Your task to perform on an android device: open chrome privacy settings Image 0: 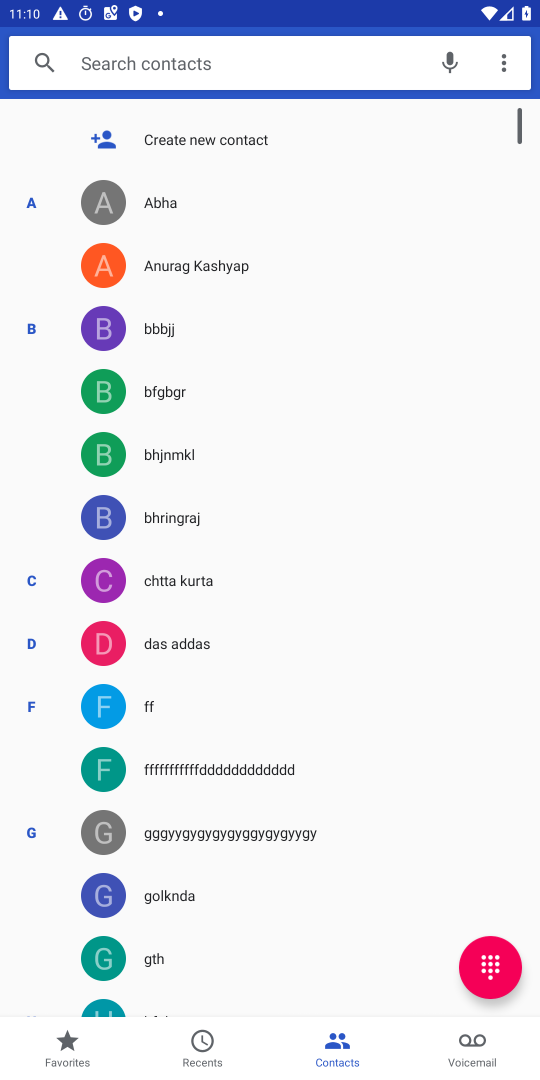
Step 0: press home button
Your task to perform on an android device: open chrome privacy settings Image 1: 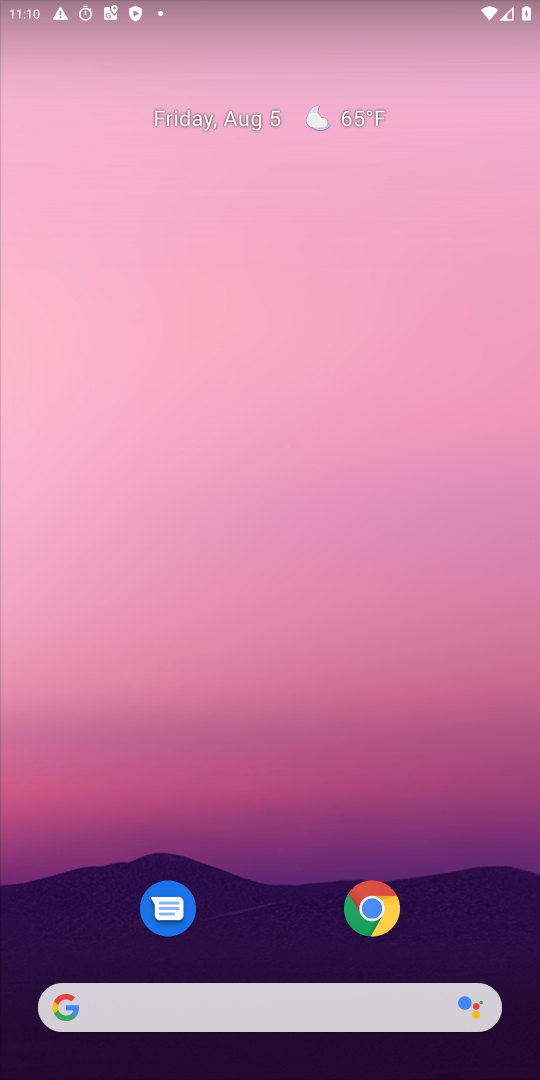
Step 1: click (375, 893)
Your task to perform on an android device: open chrome privacy settings Image 2: 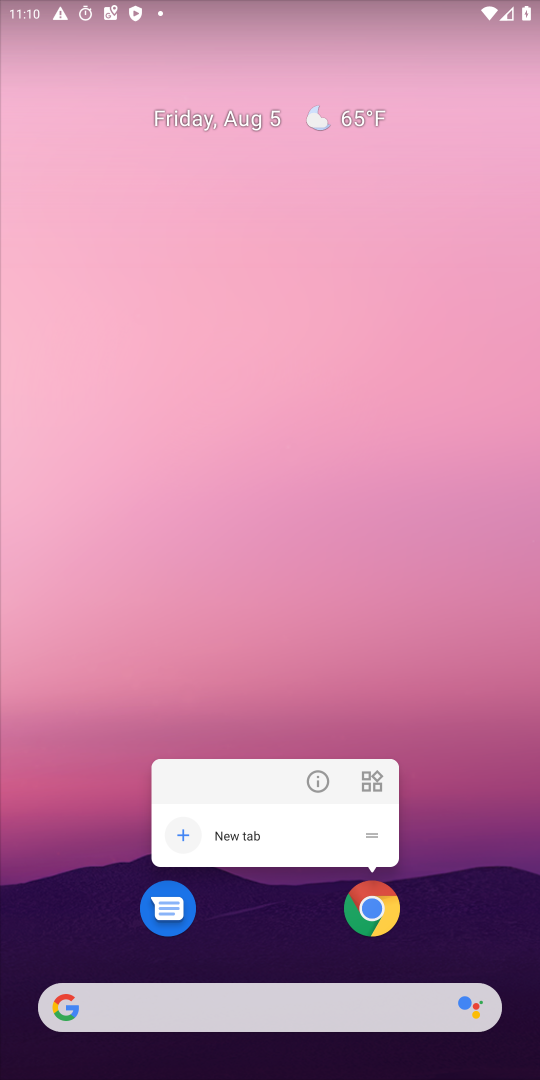
Step 2: click (364, 909)
Your task to perform on an android device: open chrome privacy settings Image 3: 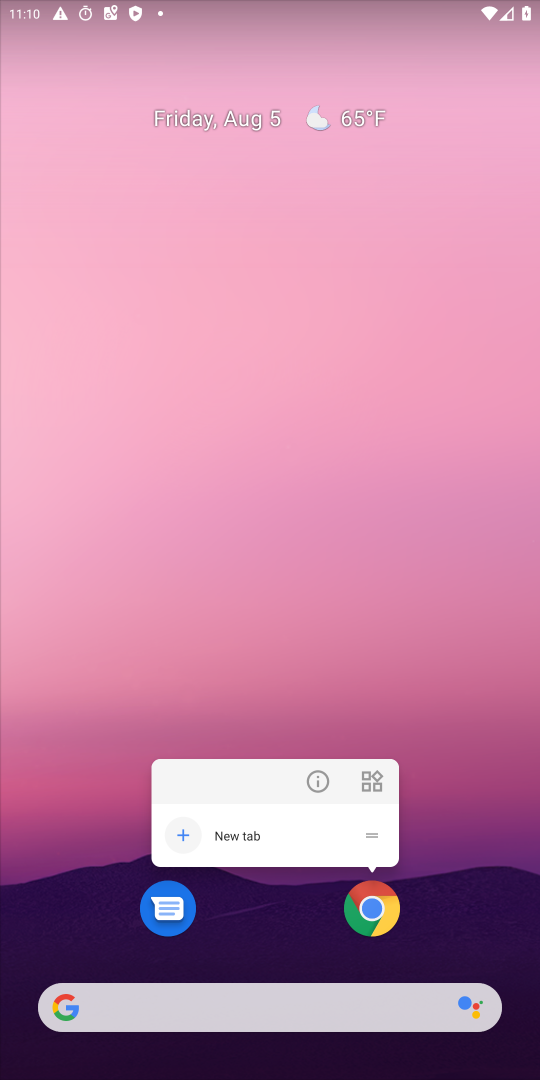
Step 3: click (350, 924)
Your task to perform on an android device: open chrome privacy settings Image 4: 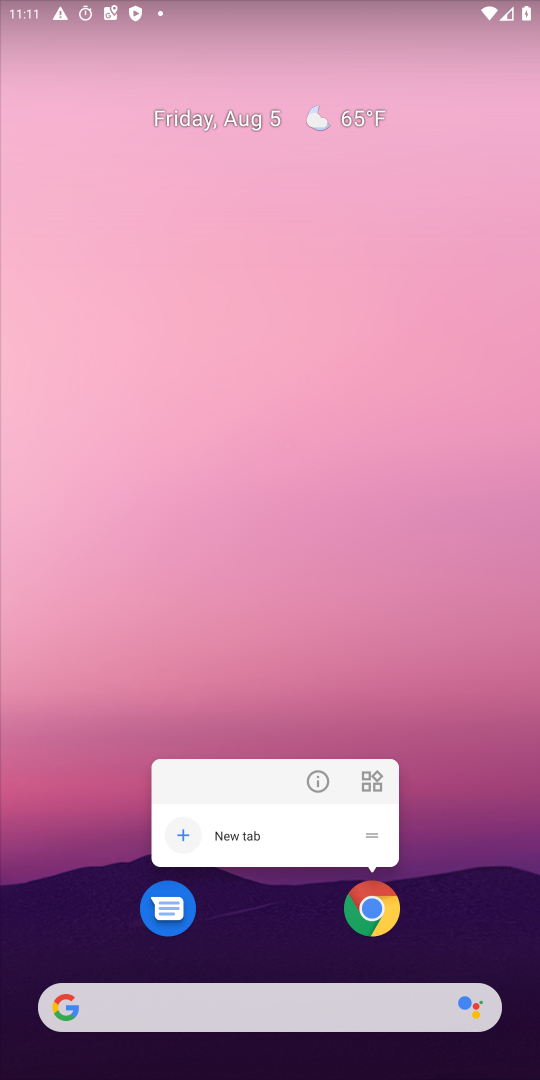
Step 4: click (369, 930)
Your task to perform on an android device: open chrome privacy settings Image 5: 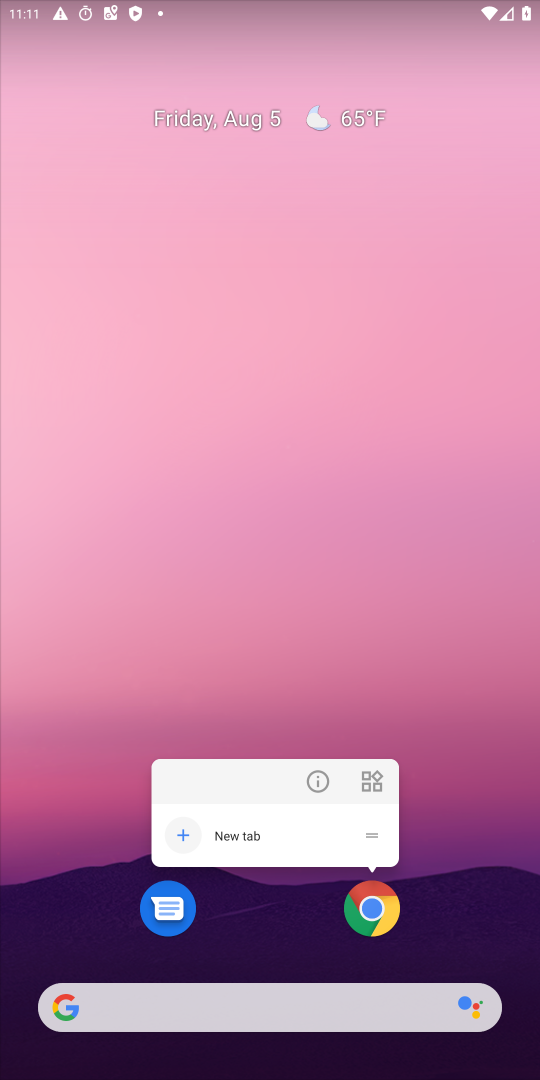
Step 5: click (373, 865)
Your task to perform on an android device: open chrome privacy settings Image 6: 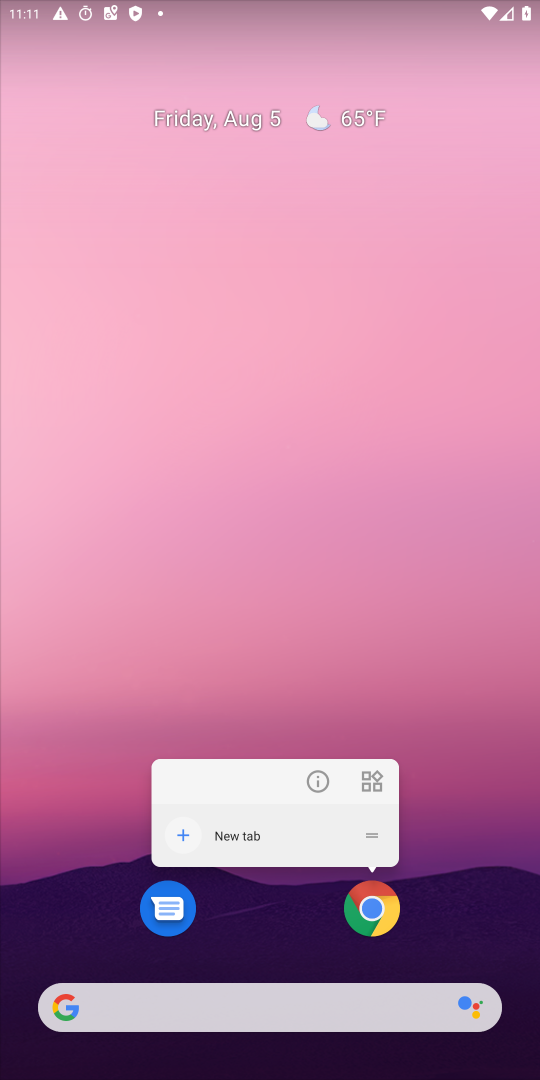
Step 6: click (376, 903)
Your task to perform on an android device: open chrome privacy settings Image 7: 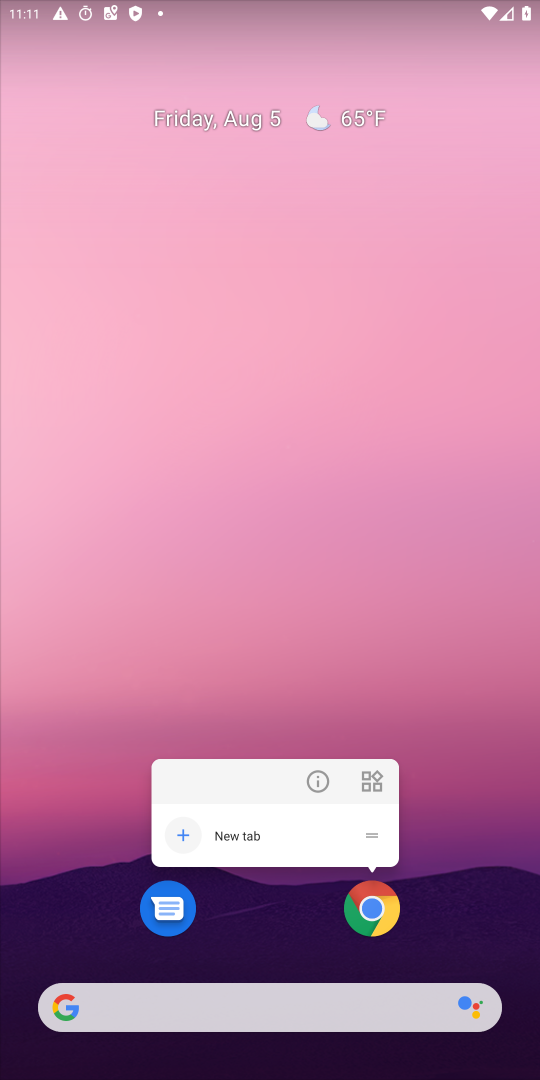
Step 7: task complete